Your task to perform on an android device: Open Wikipedia Image 0: 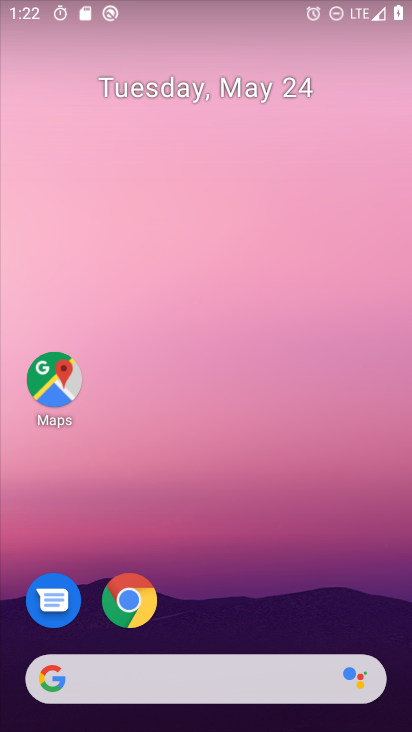
Step 0: drag from (240, 553) to (282, 142)
Your task to perform on an android device: Open Wikipedia Image 1: 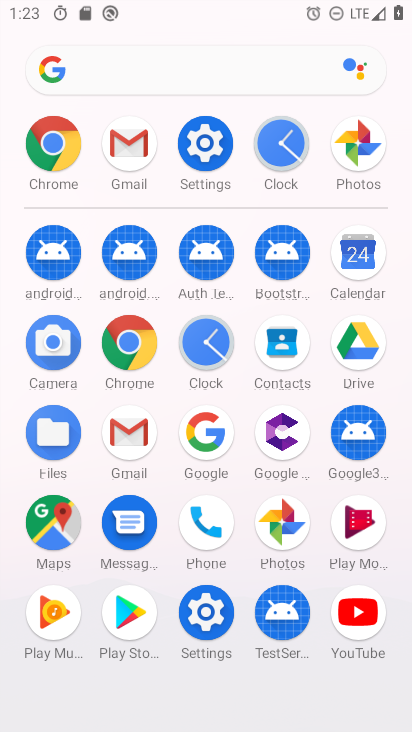
Step 1: click (136, 338)
Your task to perform on an android device: Open Wikipedia Image 2: 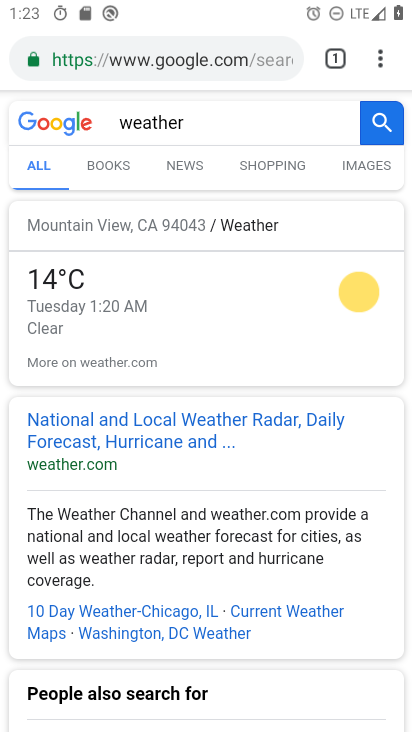
Step 2: click (187, 56)
Your task to perform on an android device: Open Wikipedia Image 3: 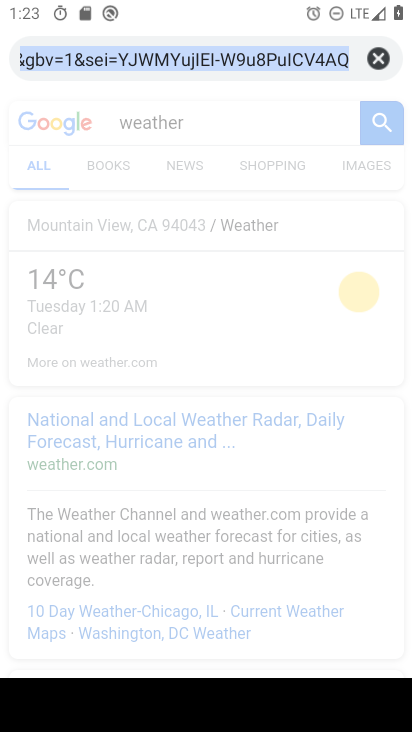
Step 3: click (381, 58)
Your task to perform on an android device: Open Wikipedia Image 4: 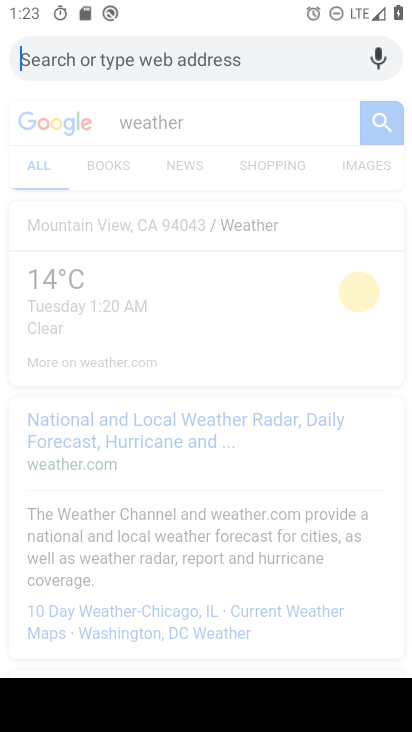
Step 4: type "wikipedia"
Your task to perform on an android device: Open Wikipedia Image 5: 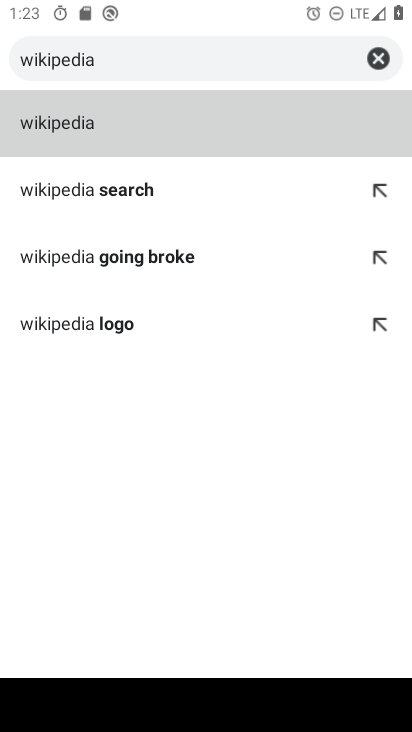
Step 5: click (55, 124)
Your task to perform on an android device: Open Wikipedia Image 6: 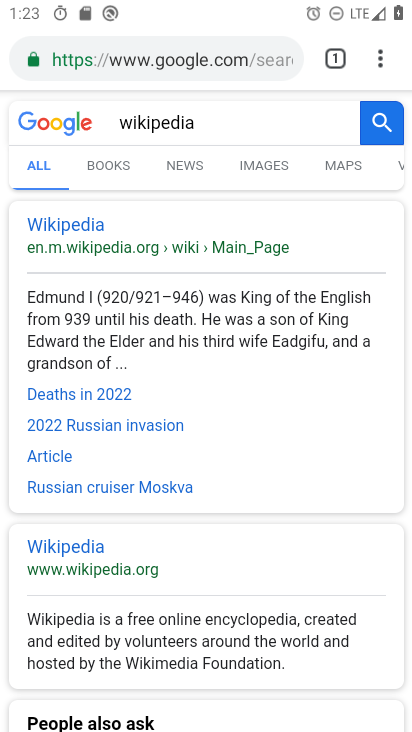
Step 6: click (69, 227)
Your task to perform on an android device: Open Wikipedia Image 7: 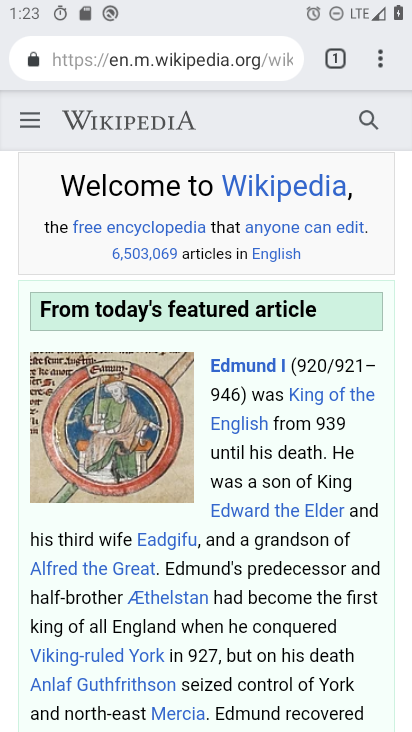
Step 7: task complete